Your task to perform on an android device: turn on translation in the chrome app Image 0: 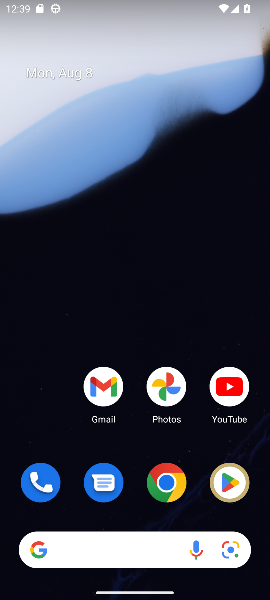
Step 0: drag from (122, 538) to (132, 277)
Your task to perform on an android device: turn on translation in the chrome app Image 1: 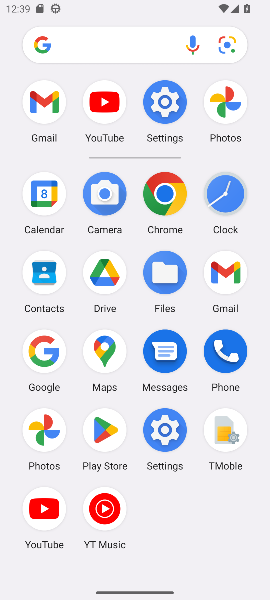
Step 1: click (172, 189)
Your task to perform on an android device: turn on translation in the chrome app Image 2: 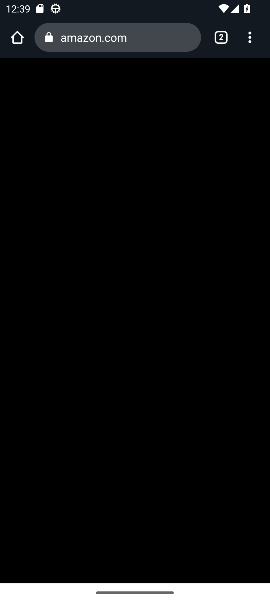
Step 2: click (252, 35)
Your task to perform on an android device: turn on translation in the chrome app Image 3: 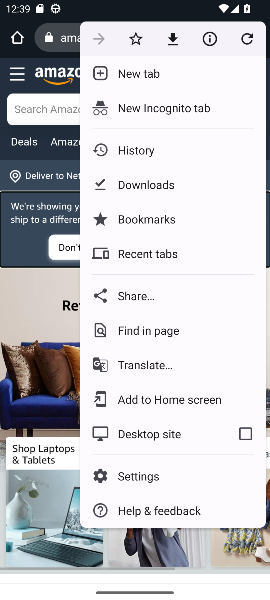
Step 3: click (134, 467)
Your task to perform on an android device: turn on translation in the chrome app Image 4: 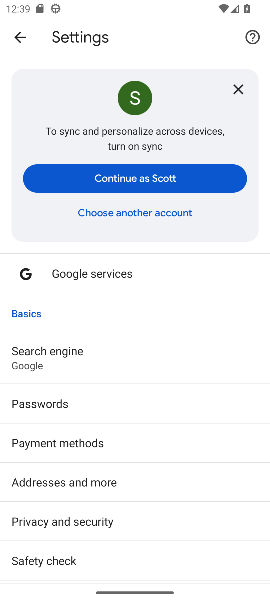
Step 4: drag from (96, 549) to (132, 71)
Your task to perform on an android device: turn on translation in the chrome app Image 5: 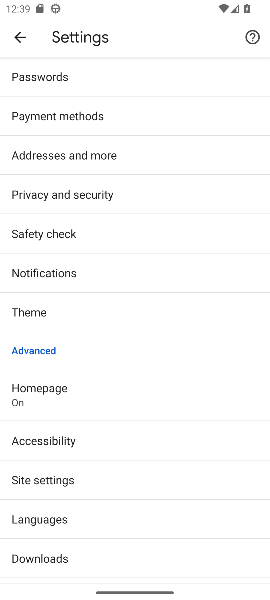
Step 5: click (34, 522)
Your task to perform on an android device: turn on translation in the chrome app Image 6: 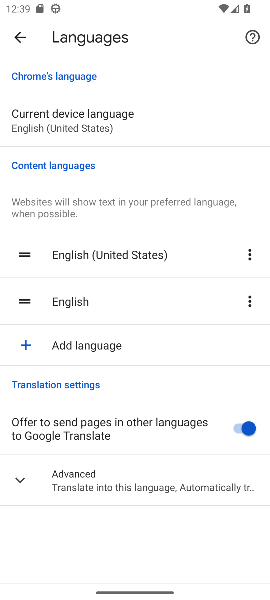
Step 6: click (231, 470)
Your task to perform on an android device: turn on translation in the chrome app Image 7: 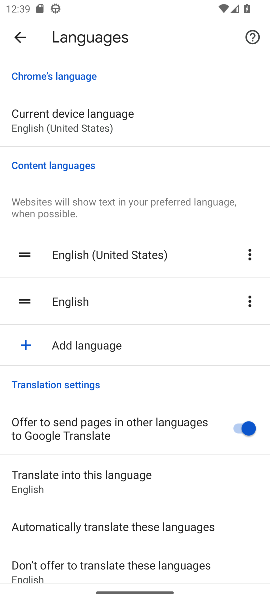
Step 7: task complete